Your task to perform on an android device: Go to internet settings Image 0: 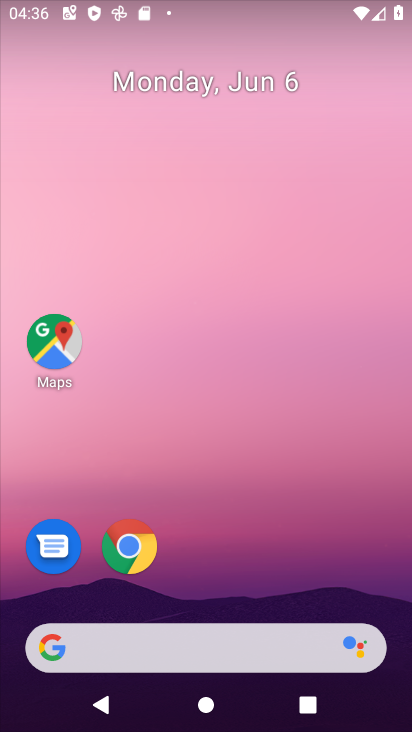
Step 0: task complete